Your task to perform on an android device: open app "PUBG MOBILE" (install if not already installed) and enter user name: "phenomenologically@gmail.com" and password: "artillery" Image 0: 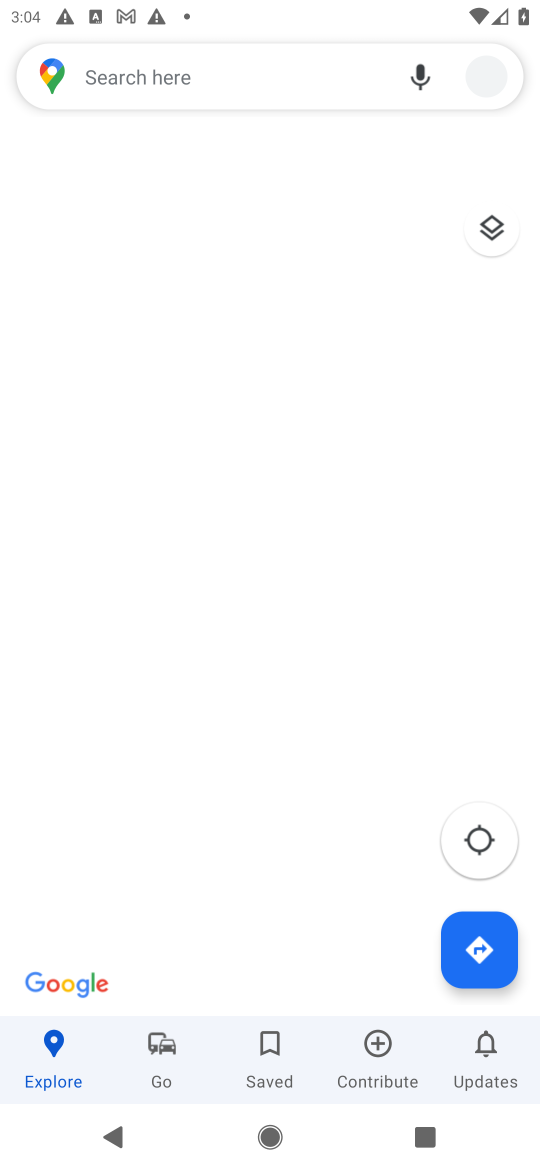
Step 0: press home button
Your task to perform on an android device: open app "PUBG MOBILE" (install if not already installed) and enter user name: "phenomenologically@gmail.com" and password: "artillery" Image 1: 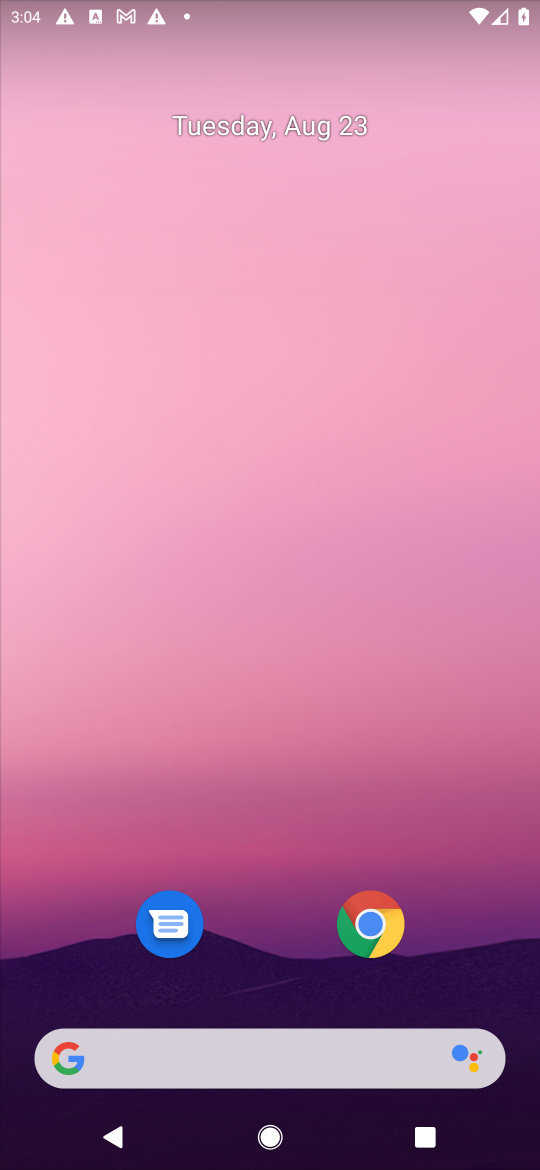
Step 1: drag from (458, 955) to (402, 56)
Your task to perform on an android device: open app "PUBG MOBILE" (install if not already installed) and enter user name: "phenomenologically@gmail.com" and password: "artillery" Image 2: 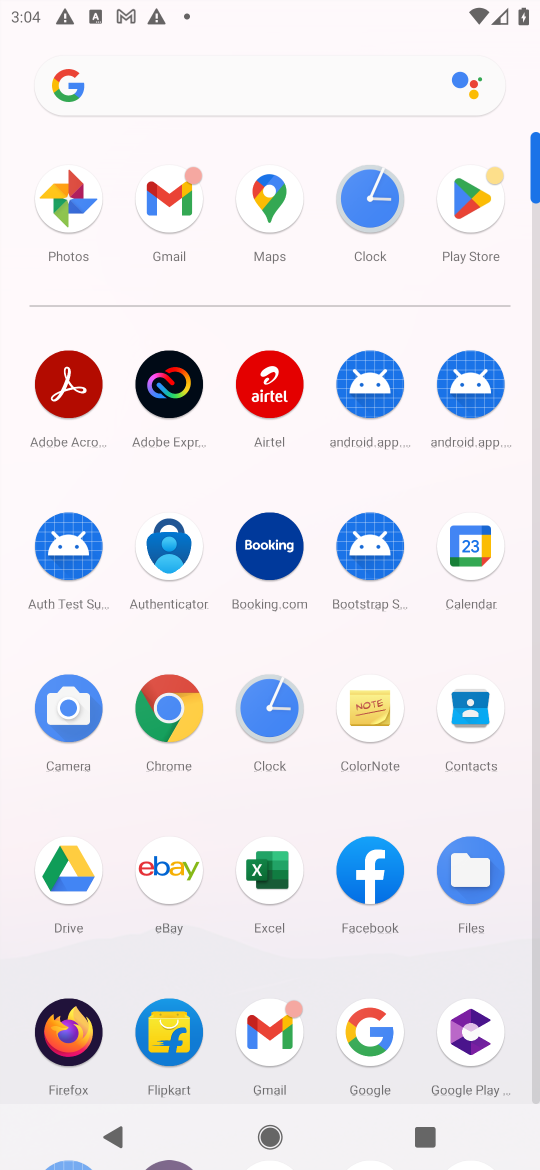
Step 2: click (472, 201)
Your task to perform on an android device: open app "PUBG MOBILE" (install if not already installed) and enter user name: "phenomenologically@gmail.com" and password: "artillery" Image 3: 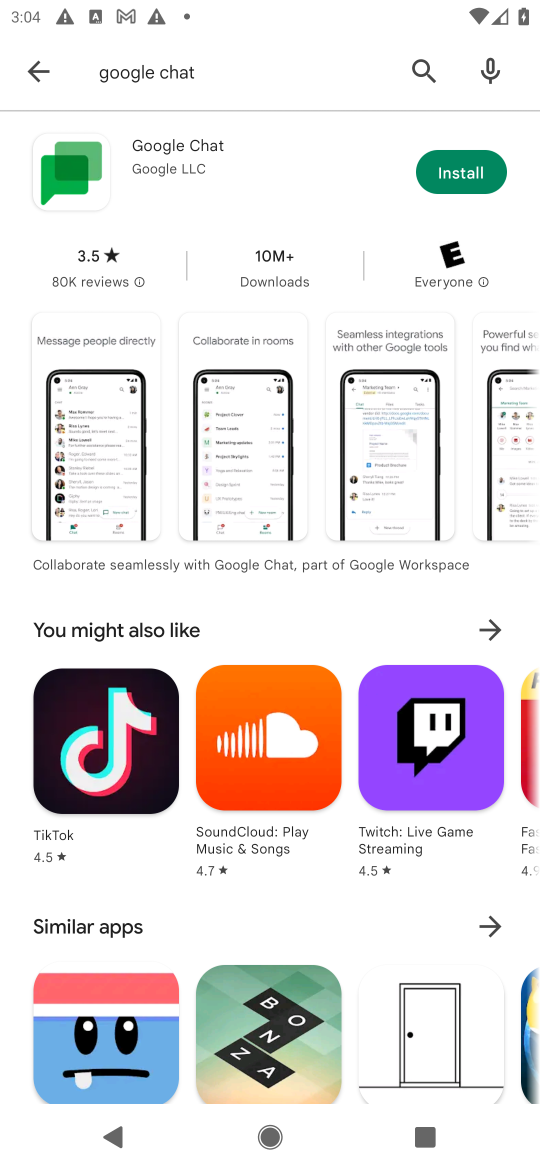
Step 3: press back button
Your task to perform on an android device: open app "PUBG MOBILE" (install if not already installed) and enter user name: "phenomenologically@gmail.com" and password: "artillery" Image 4: 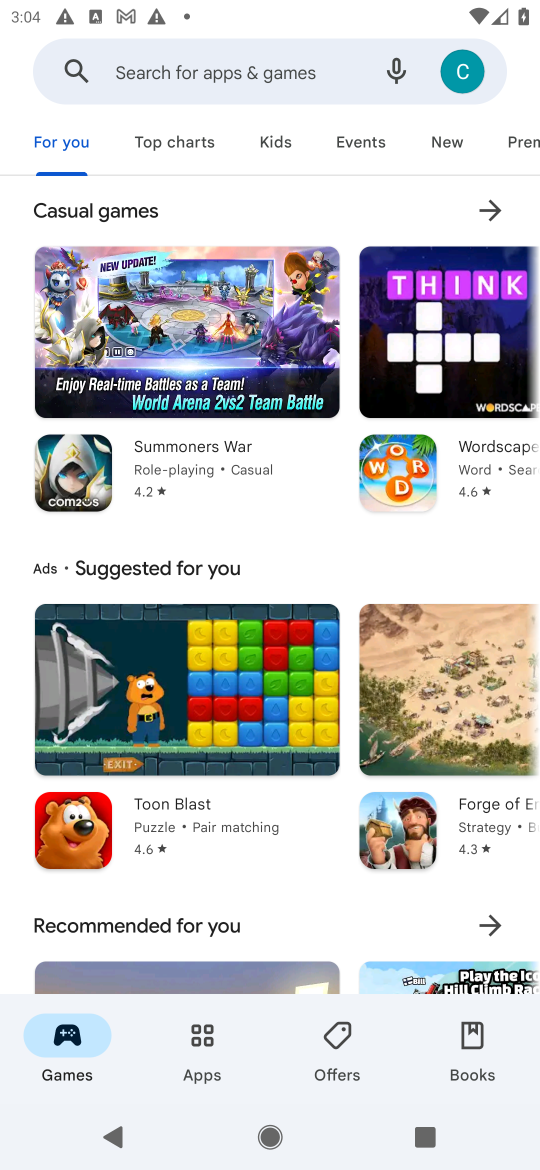
Step 4: click (281, 67)
Your task to perform on an android device: open app "PUBG MOBILE" (install if not already installed) and enter user name: "phenomenologically@gmail.com" and password: "artillery" Image 5: 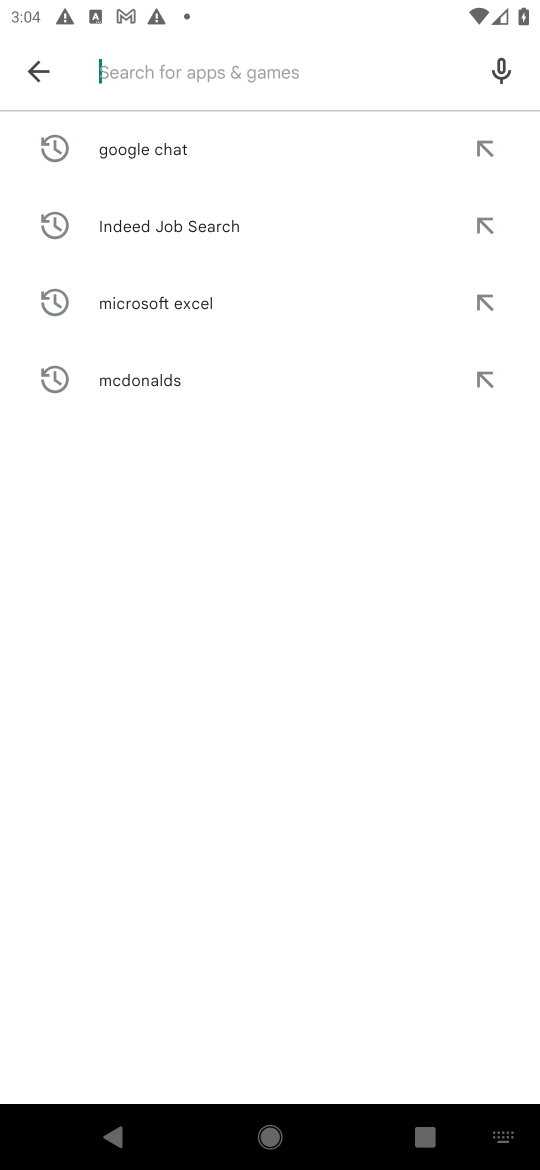
Step 5: type "PUBG MOBILE"
Your task to perform on an android device: open app "PUBG MOBILE" (install if not already installed) and enter user name: "phenomenologically@gmail.com" and password: "artillery" Image 6: 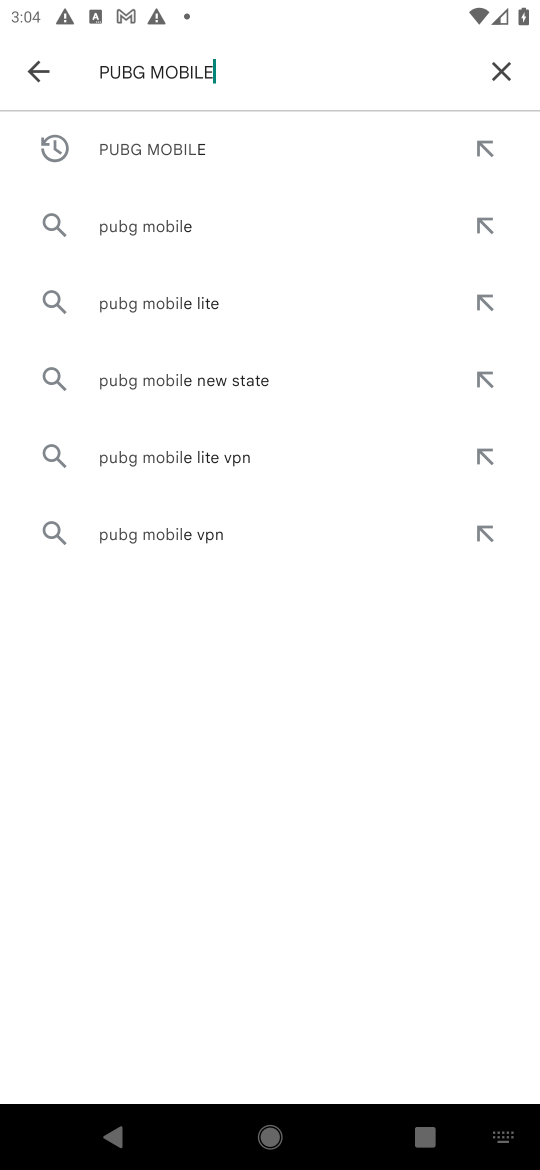
Step 6: press enter
Your task to perform on an android device: open app "PUBG MOBILE" (install if not already installed) and enter user name: "phenomenologically@gmail.com" and password: "artillery" Image 7: 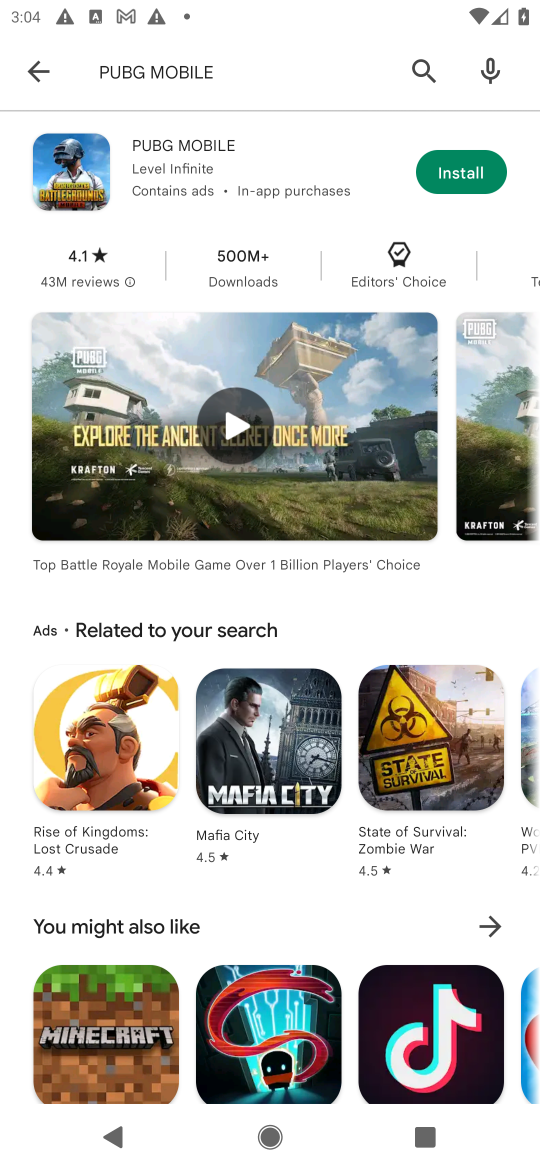
Step 7: click (476, 172)
Your task to perform on an android device: open app "PUBG MOBILE" (install if not already installed) and enter user name: "phenomenologically@gmail.com" and password: "artillery" Image 8: 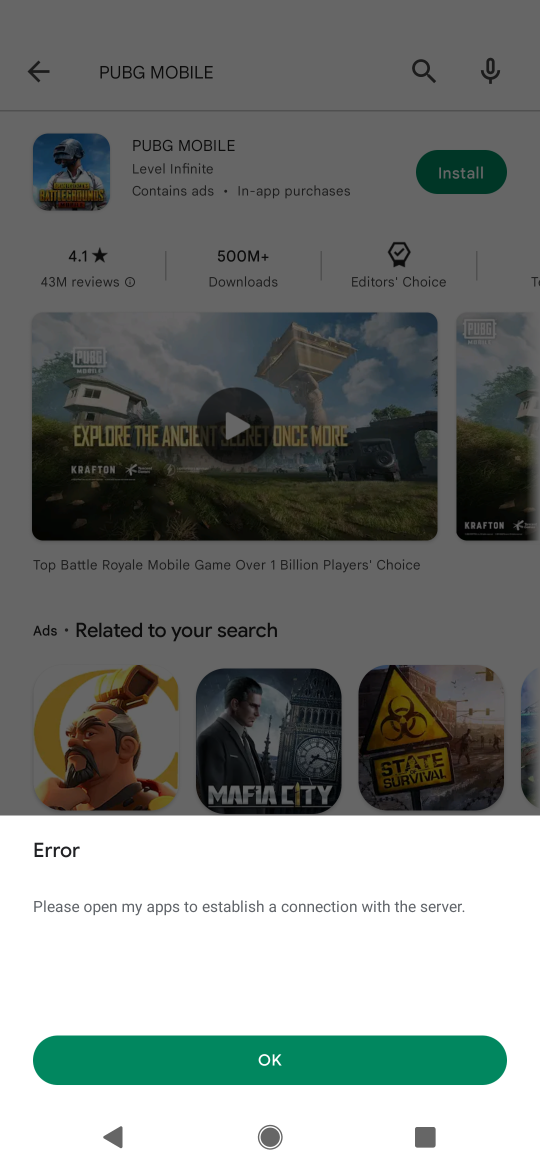
Step 8: task complete